Your task to perform on an android device: Go to location settings Image 0: 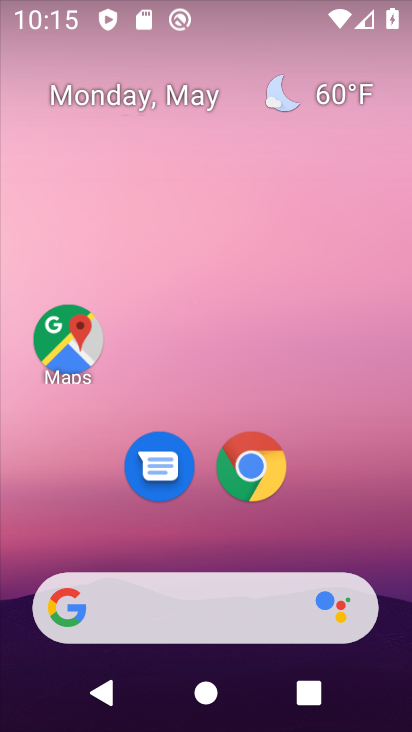
Step 0: drag from (251, 509) to (235, 178)
Your task to perform on an android device: Go to location settings Image 1: 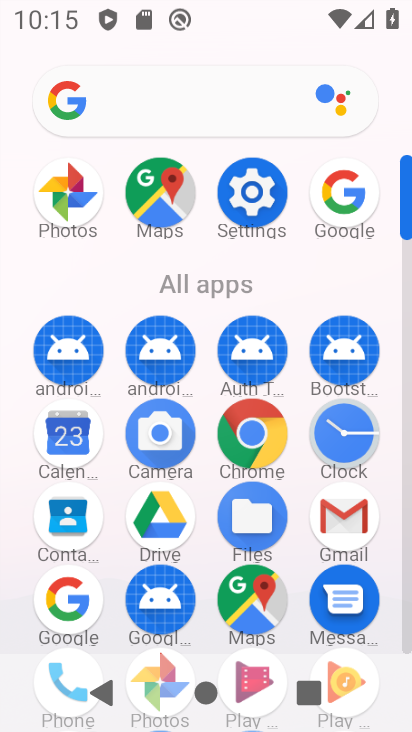
Step 1: click (241, 166)
Your task to perform on an android device: Go to location settings Image 2: 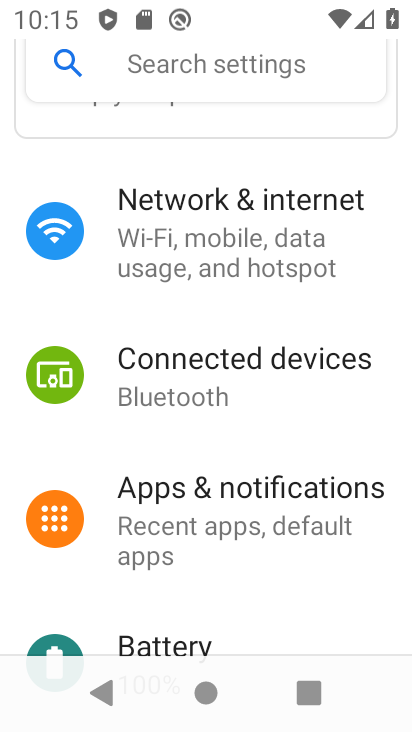
Step 2: drag from (219, 497) to (185, 202)
Your task to perform on an android device: Go to location settings Image 3: 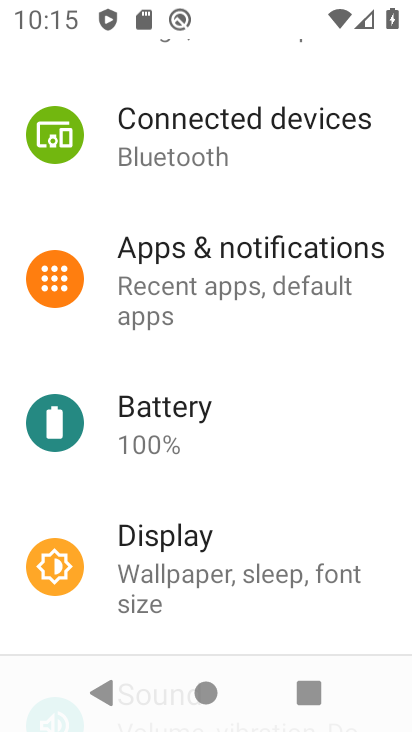
Step 3: drag from (198, 319) to (164, 88)
Your task to perform on an android device: Go to location settings Image 4: 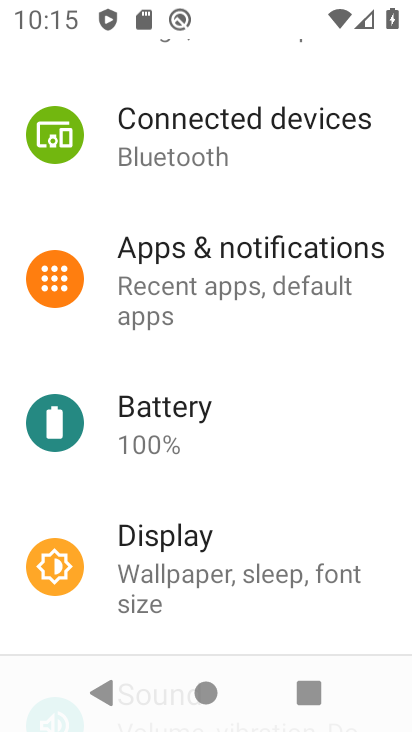
Step 4: drag from (296, 450) to (234, 134)
Your task to perform on an android device: Go to location settings Image 5: 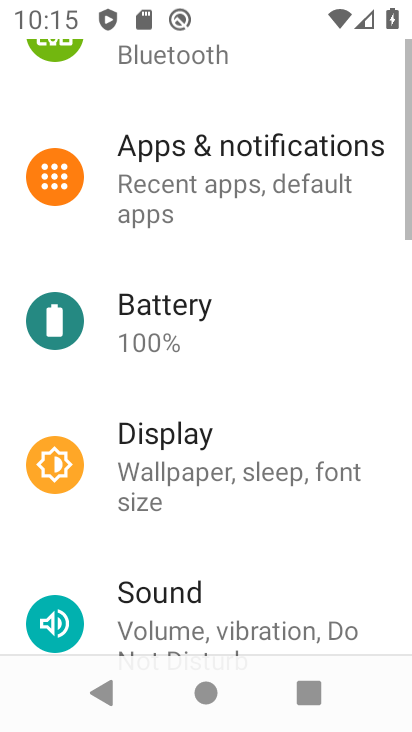
Step 5: drag from (198, 526) to (179, 93)
Your task to perform on an android device: Go to location settings Image 6: 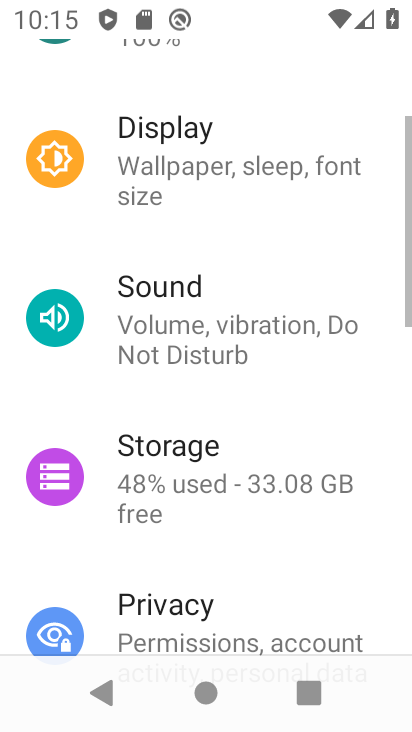
Step 6: drag from (277, 565) to (241, 200)
Your task to perform on an android device: Go to location settings Image 7: 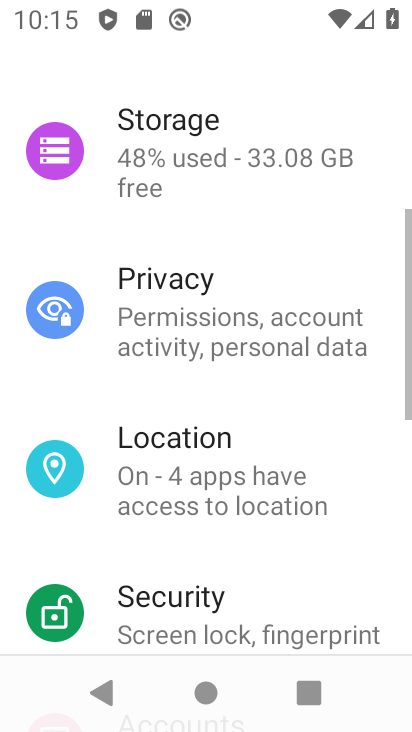
Step 7: drag from (290, 534) to (247, 72)
Your task to perform on an android device: Go to location settings Image 8: 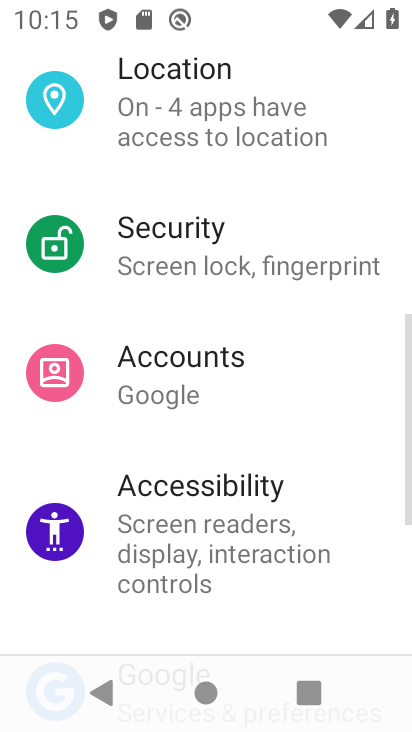
Step 8: drag from (208, 471) to (192, 126)
Your task to perform on an android device: Go to location settings Image 9: 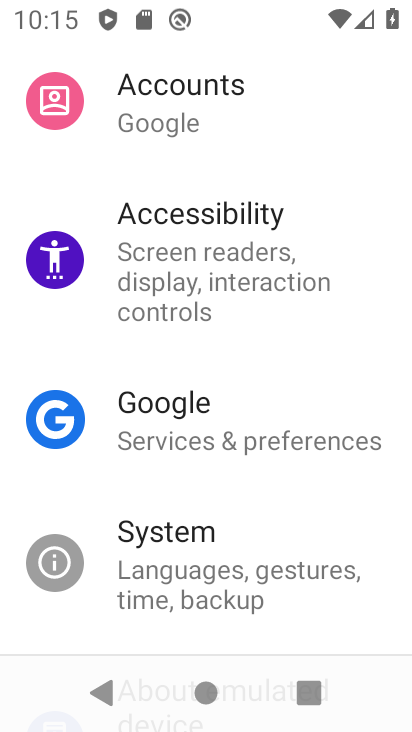
Step 9: drag from (193, 186) to (193, 554)
Your task to perform on an android device: Go to location settings Image 10: 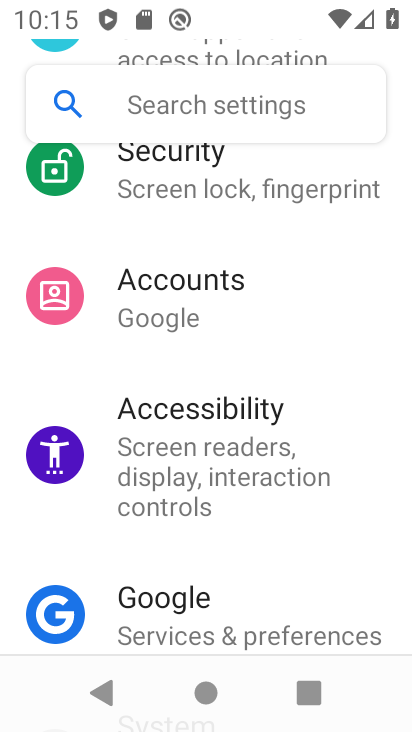
Step 10: drag from (165, 194) to (242, 511)
Your task to perform on an android device: Go to location settings Image 11: 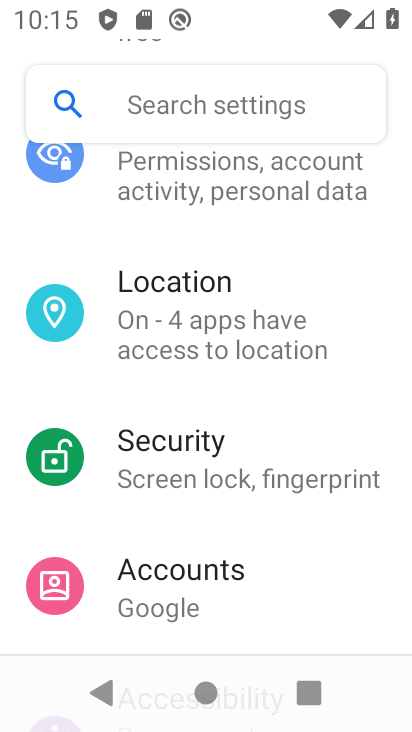
Step 11: click (227, 324)
Your task to perform on an android device: Go to location settings Image 12: 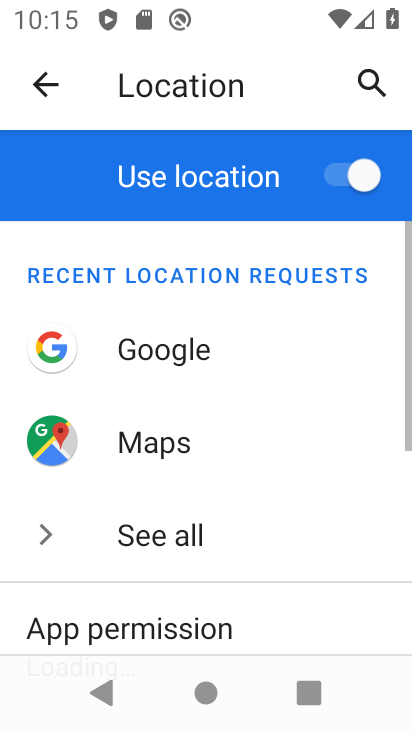
Step 12: task complete